Your task to perform on an android device: Open ESPN.com Image 0: 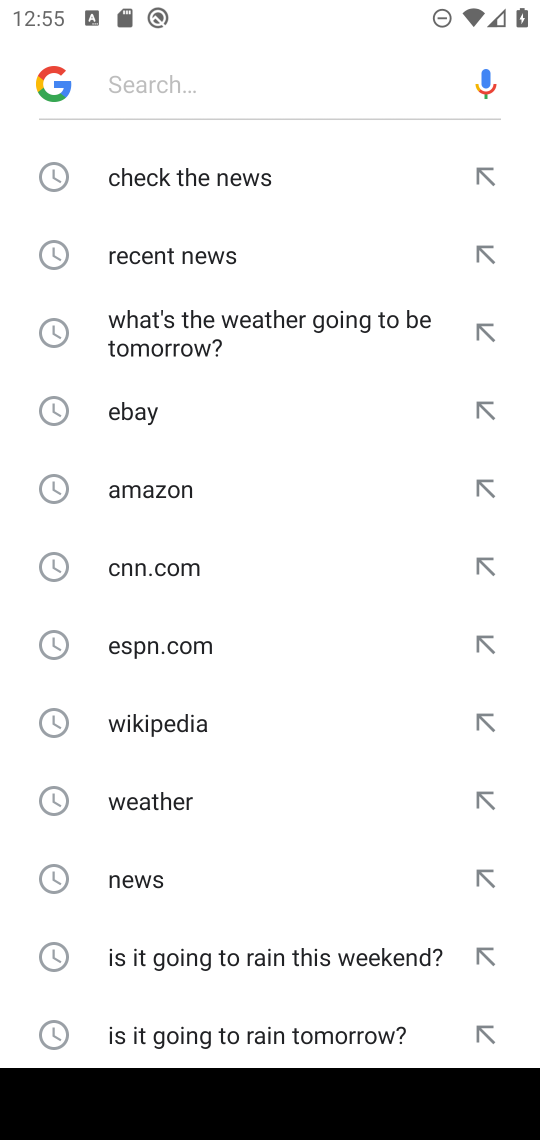
Step 0: type "espn.com"
Your task to perform on an android device: Open ESPN.com Image 1: 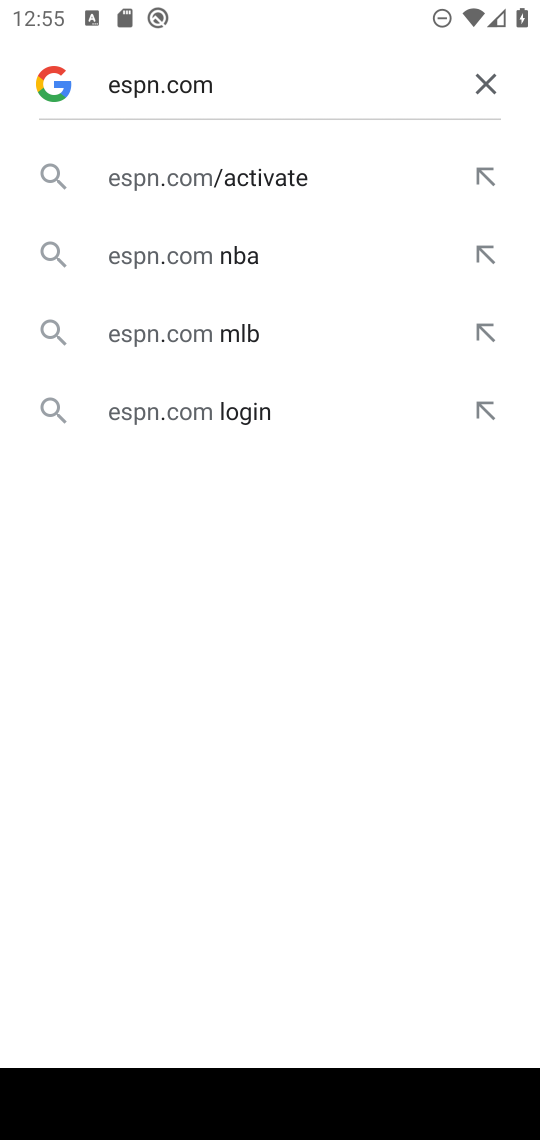
Step 1: click (309, 172)
Your task to perform on an android device: Open ESPN.com Image 2: 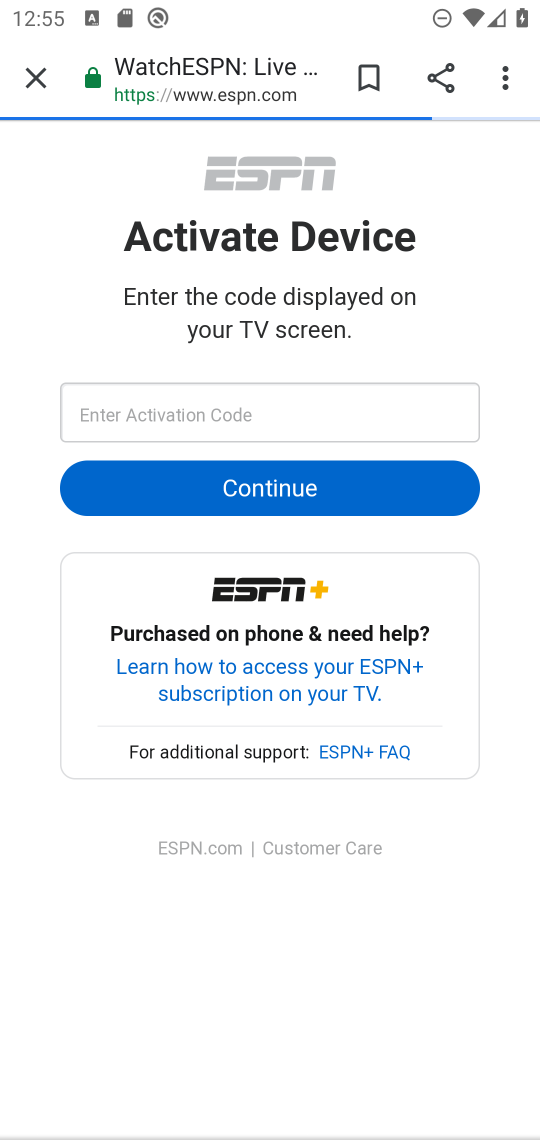
Step 2: task complete